Your task to perform on an android device: Show me popular videos on Youtube Image 0: 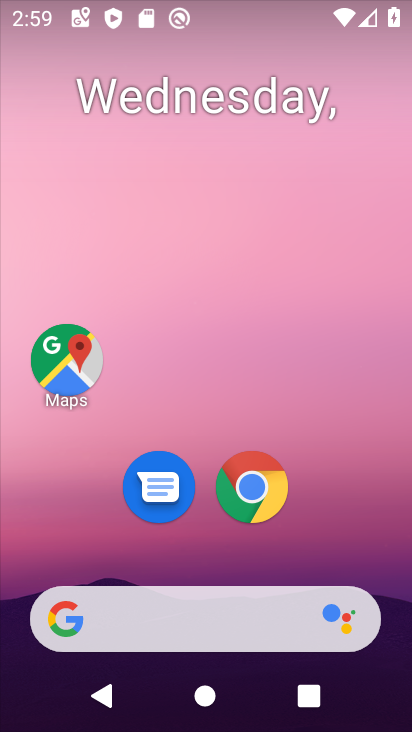
Step 0: drag from (343, 529) to (326, 73)
Your task to perform on an android device: Show me popular videos on Youtube Image 1: 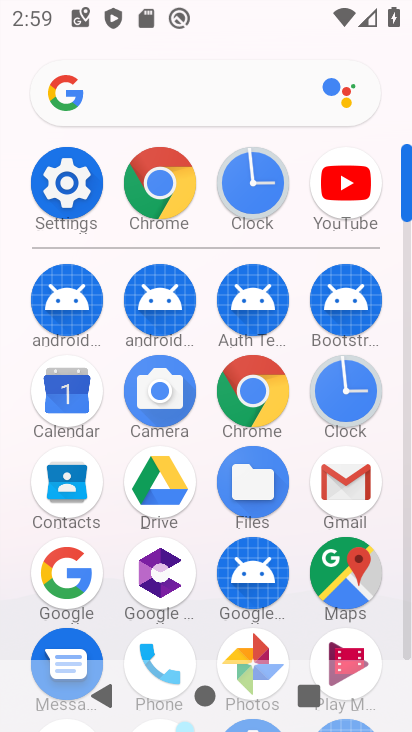
Step 1: click (360, 184)
Your task to perform on an android device: Show me popular videos on Youtube Image 2: 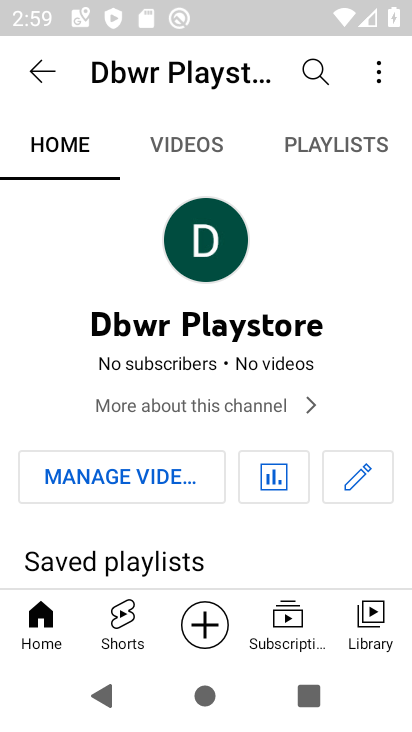
Step 2: click (312, 53)
Your task to perform on an android device: Show me popular videos on Youtube Image 3: 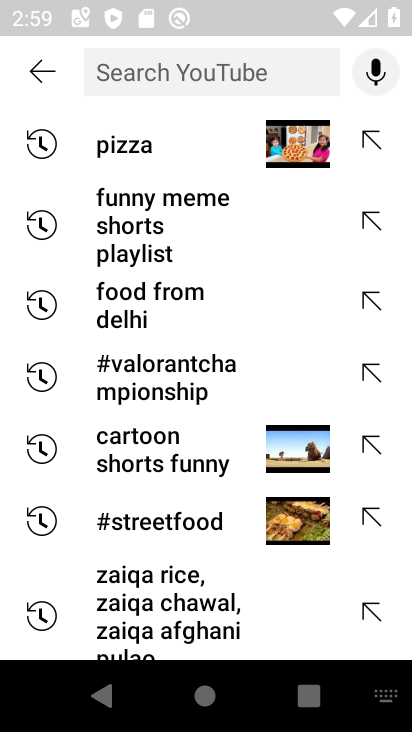
Step 3: type "popuar videos"
Your task to perform on an android device: Show me popular videos on Youtube Image 4: 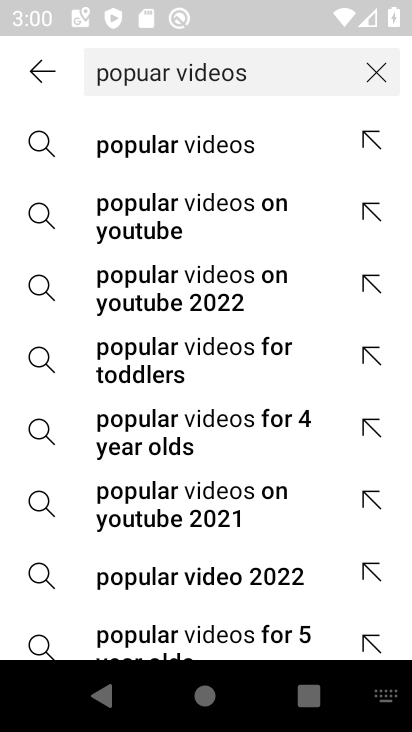
Step 4: click (285, 212)
Your task to perform on an android device: Show me popular videos on Youtube Image 5: 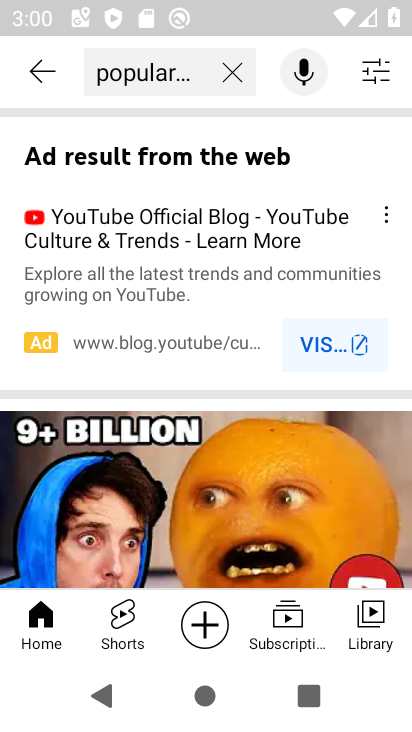
Step 5: drag from (267, 511) to (206, 72)
Your task to perform on an android device: Show me popular videos on Youtube Image 6: 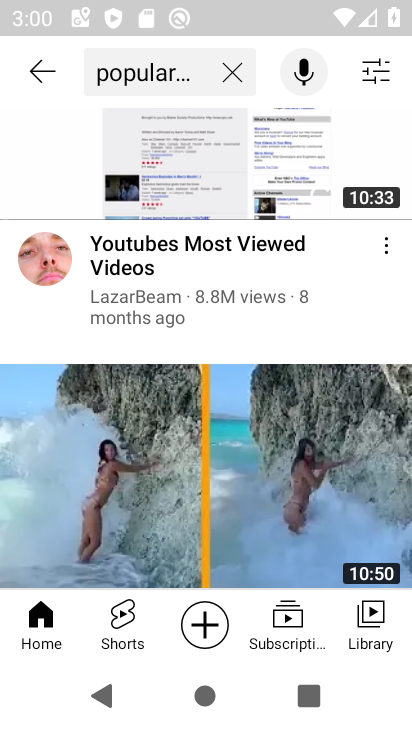
Step 6: click (260, 452)
Your task to perform on an android device: Show me popular videos on Youtube Image 7: 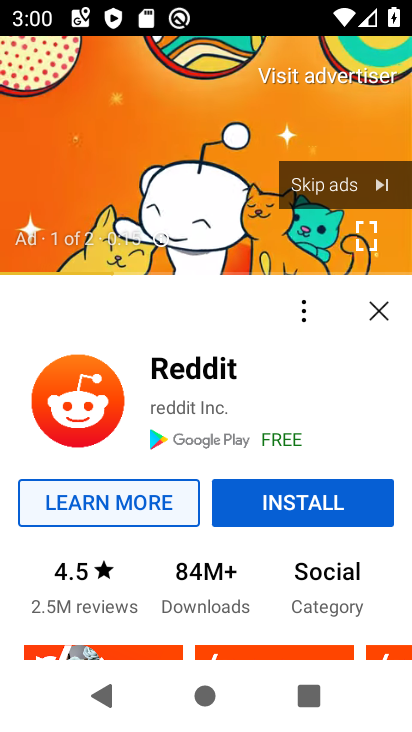
Step 7: click (354, 186)
Your task to perform on an android device: Show me popular videos on Youtube Image 8: 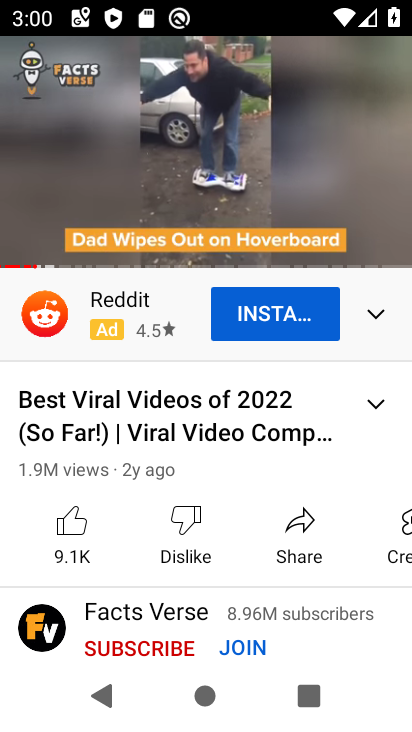
Step 8: task complete